Your task to perform on an android device: Go to display settings Image 0: 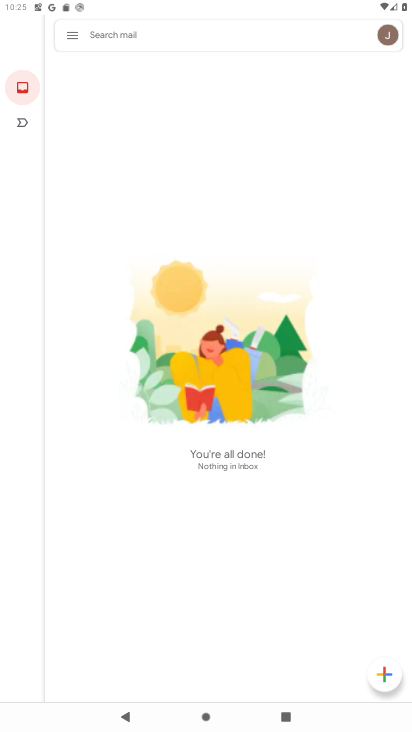
Step 0: press home button
Your task to perform on an android device: Go to display settings Image 1: 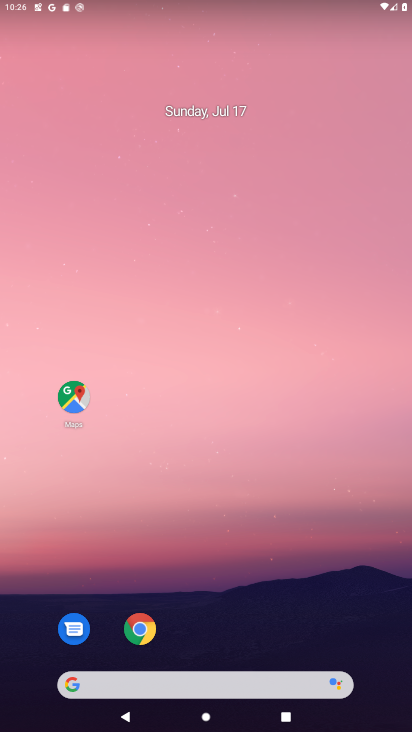
Step 1: drag from (224, 687) to (289, 235)
Your task to perform on an android device: Go to display settings Image 2: 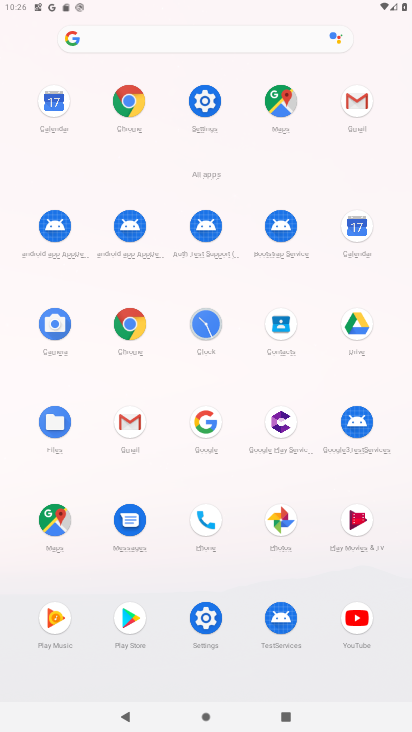
Step 2: click (205, 102)
Your task to perform on an android device: Go to display settings Image 3: 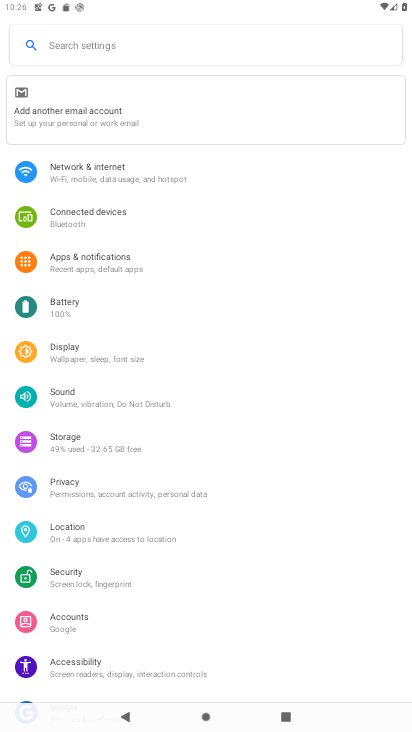
Step 3: click (80, 354)
Your task to perform on an android device: Go to display settings Image 4: 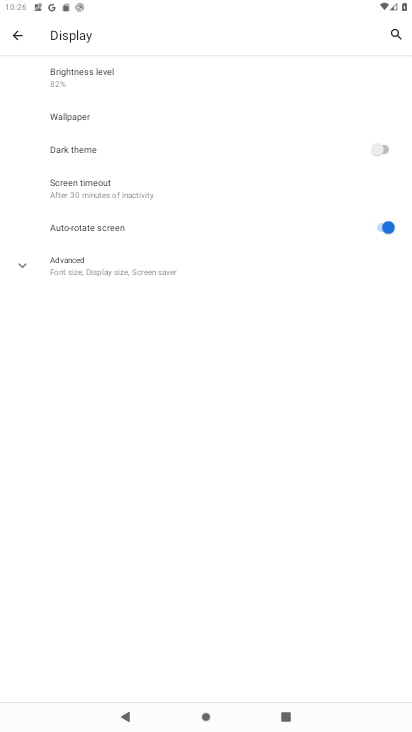
Step 4: task complete